Your task to perform on an android device: Open Chrome and go to the settings page Image 0: 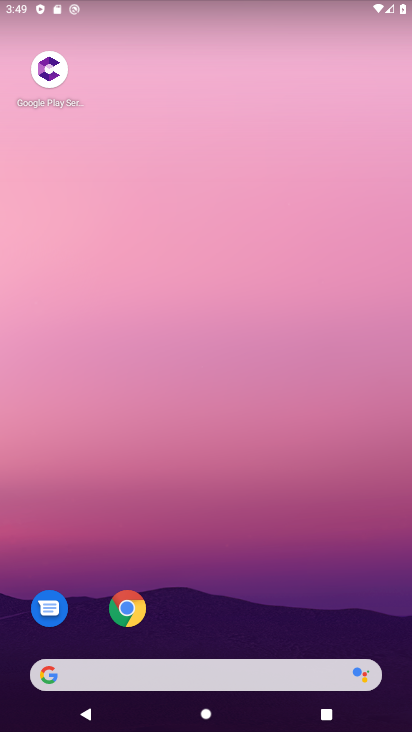
Step 0: drag from (153, 694) to (204, 7)
Your task to perform on an android device: Open Chrome and go to the settings page Image 1: 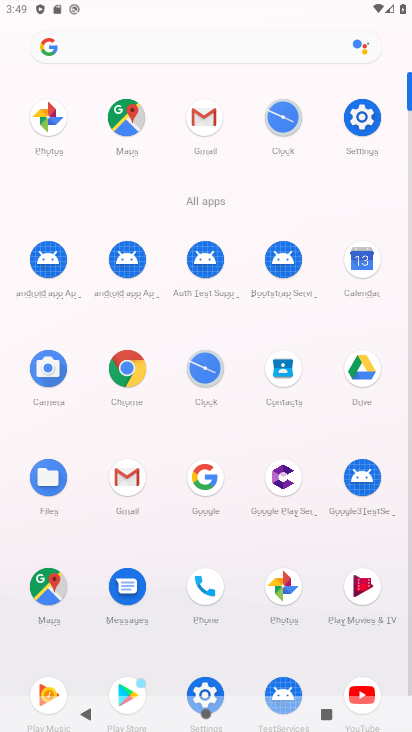
Step 1: click (126, 372)
Your task to perform on an android device: Open Chrome and go to the settings page Image 2: 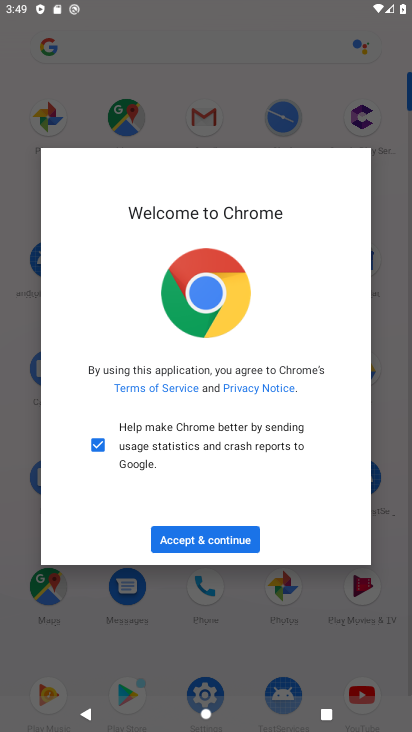
Step 2: click (238, 544)
Your task to perform on an android device: Open Chrome and go to the settings page Image 3: 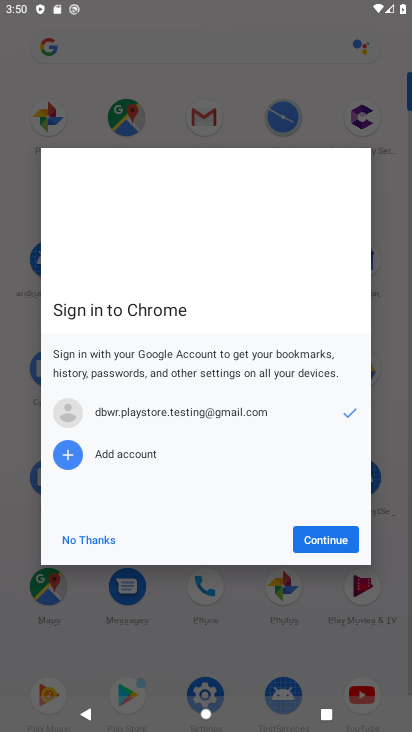
Step 3: click (96, 545)
Your task to perform on an android device: Open Chrome and go to the settings page Image 4: 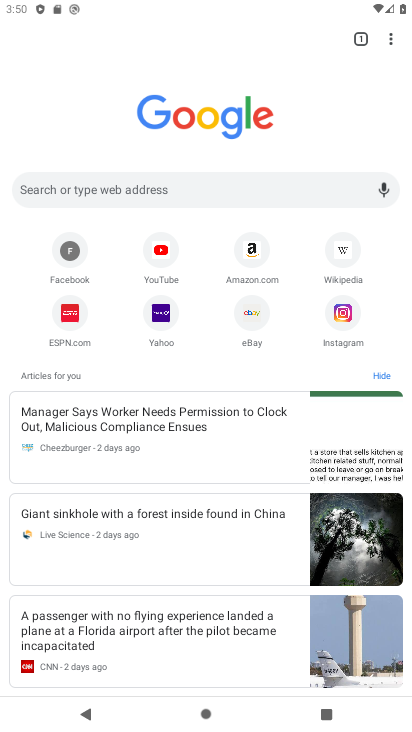
Step 4: press home button
Your task to perform on an android device: Open Chrome and go to the settings page Image 5: 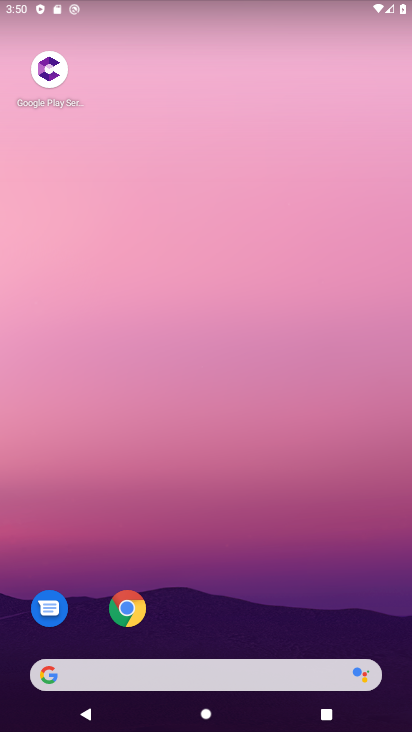
Step 5: drag from (126, 634) to (146, 43)
Your task to perform on an android device: Open Chrome and go to the settings page Image 6: 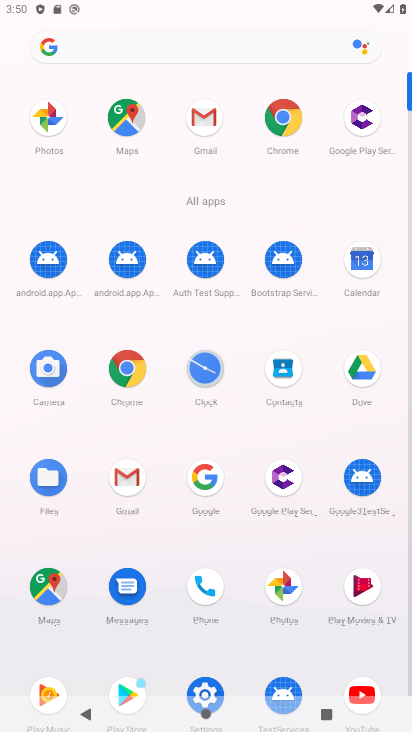
Step 6: click (139, 374)
Your task to perform on an android device: Open Chrome and go to the settings page Image 7: 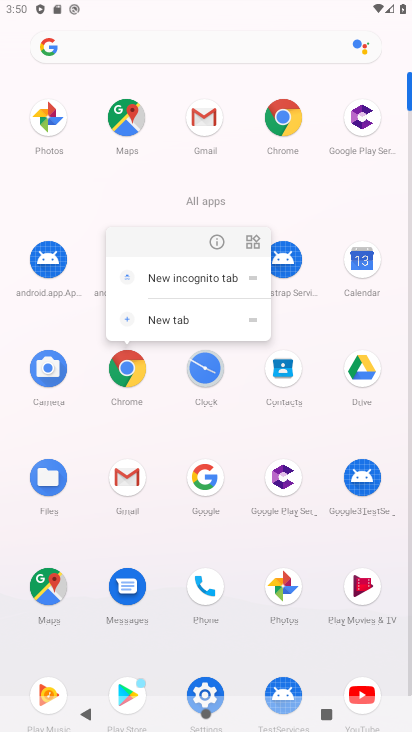
Step 7: click (138, 372)
Your task to perform on an android device: Open Chrome and go to the settings page Image 8: 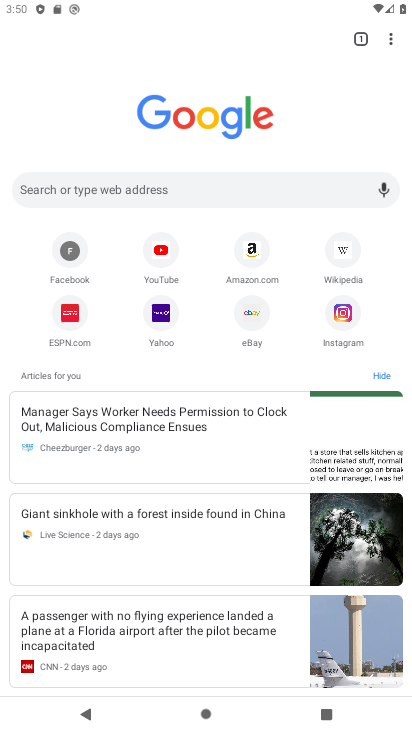
Step 8: drag from (384, 34) to (343, 240)
Your task to perform on an android device: Open Chrome and go to the settings page Image 9: 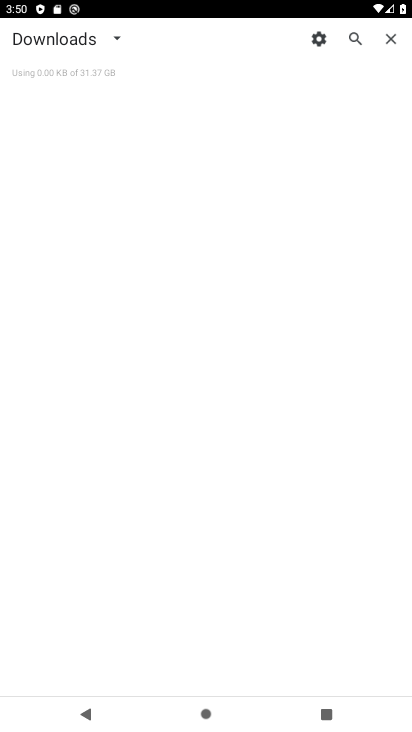
Step 9: press back button
Your task to perform on an android device: Open Chrome and go to the settings page Image 10: 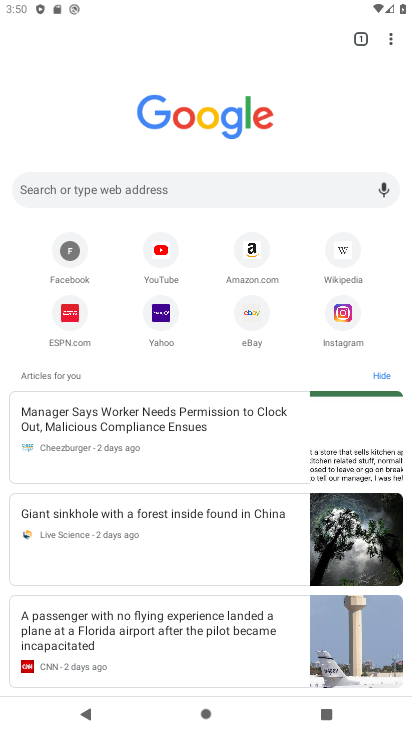
Step 10: click (387, 36)
Your task to perform on an android device: Open Chrome and go to the settings page Image 11: 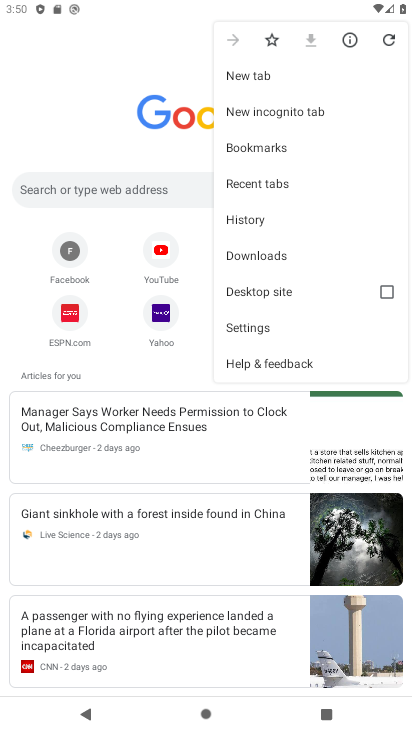
Step 11: click (266, 324)
Your task to perform on an android device: Open Chrome and go to the settings page Image 12: 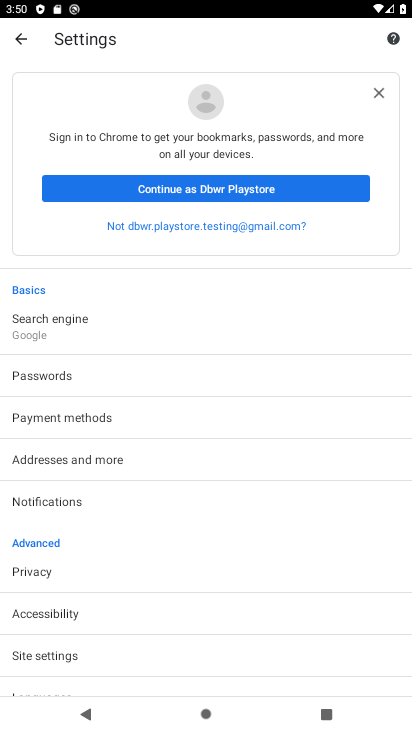
Step 12: task complete